Your task to perform on an android device: Open Chrome and go to settings Image 0: 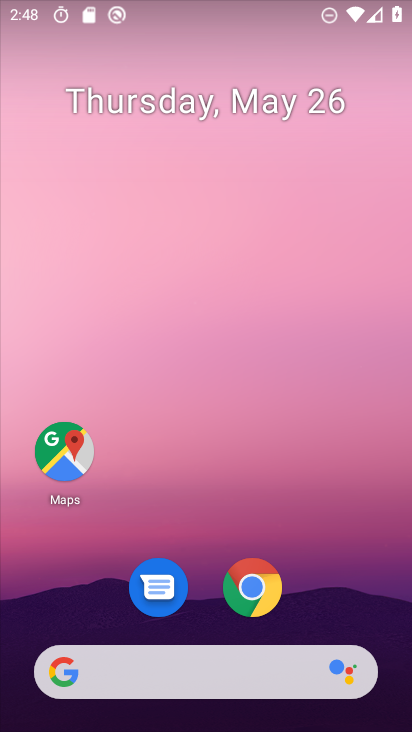
Step 0: click (247, 590)
Your task to perform on an android device: Open Chrome and go to settings Image 1: 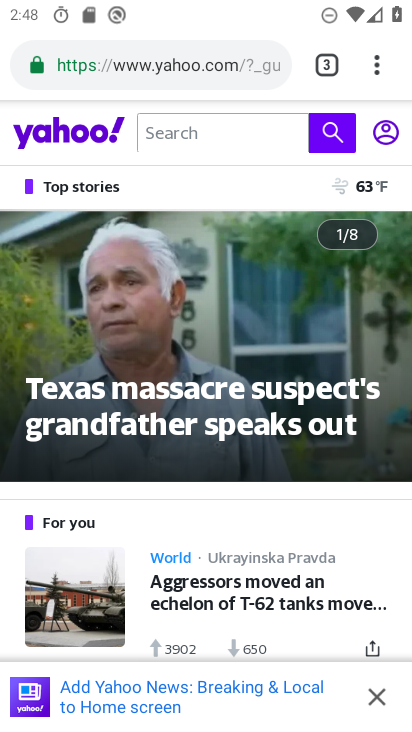
Step 1: task complete